Your task to perform on an android device: change your default location settings in chrome Image 0: 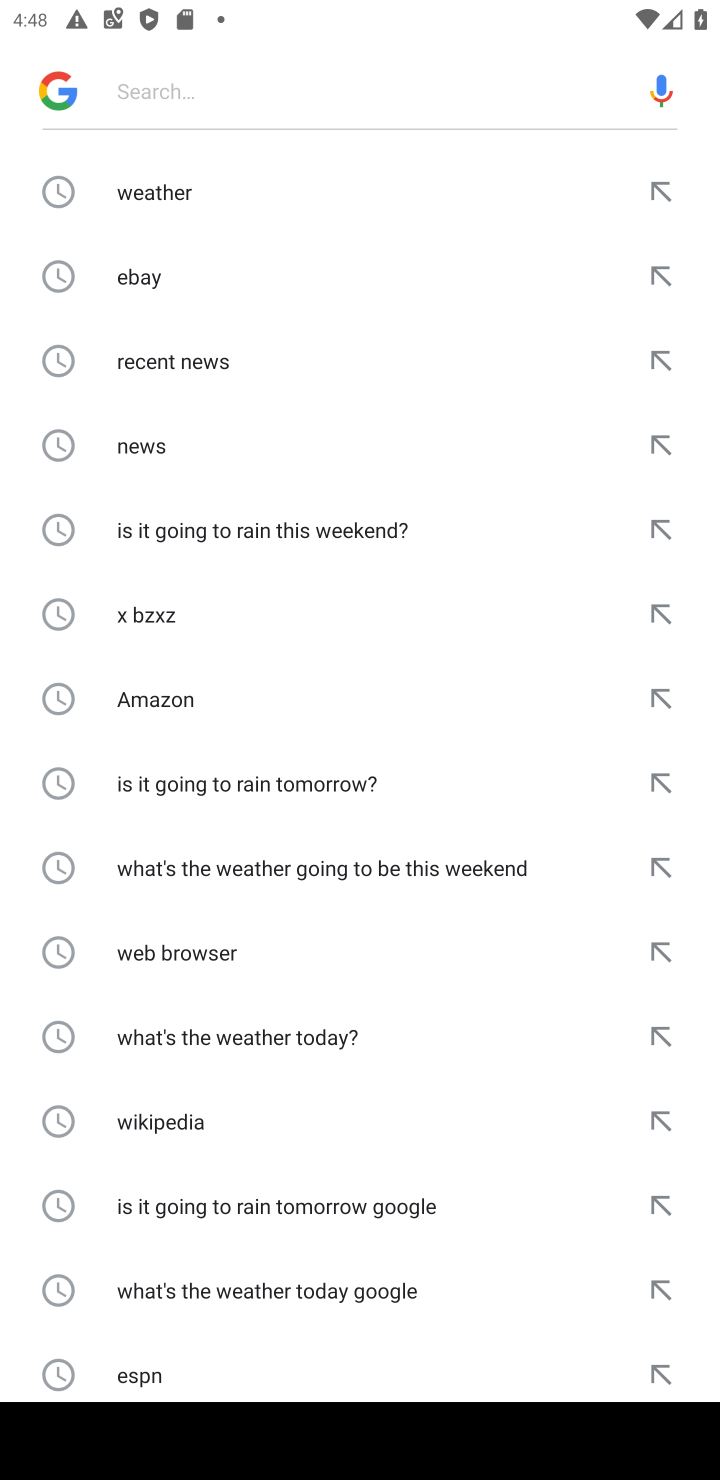
Step 0: press home button
Your task to perform on an android device: change your default location settings in chrome Image 1: 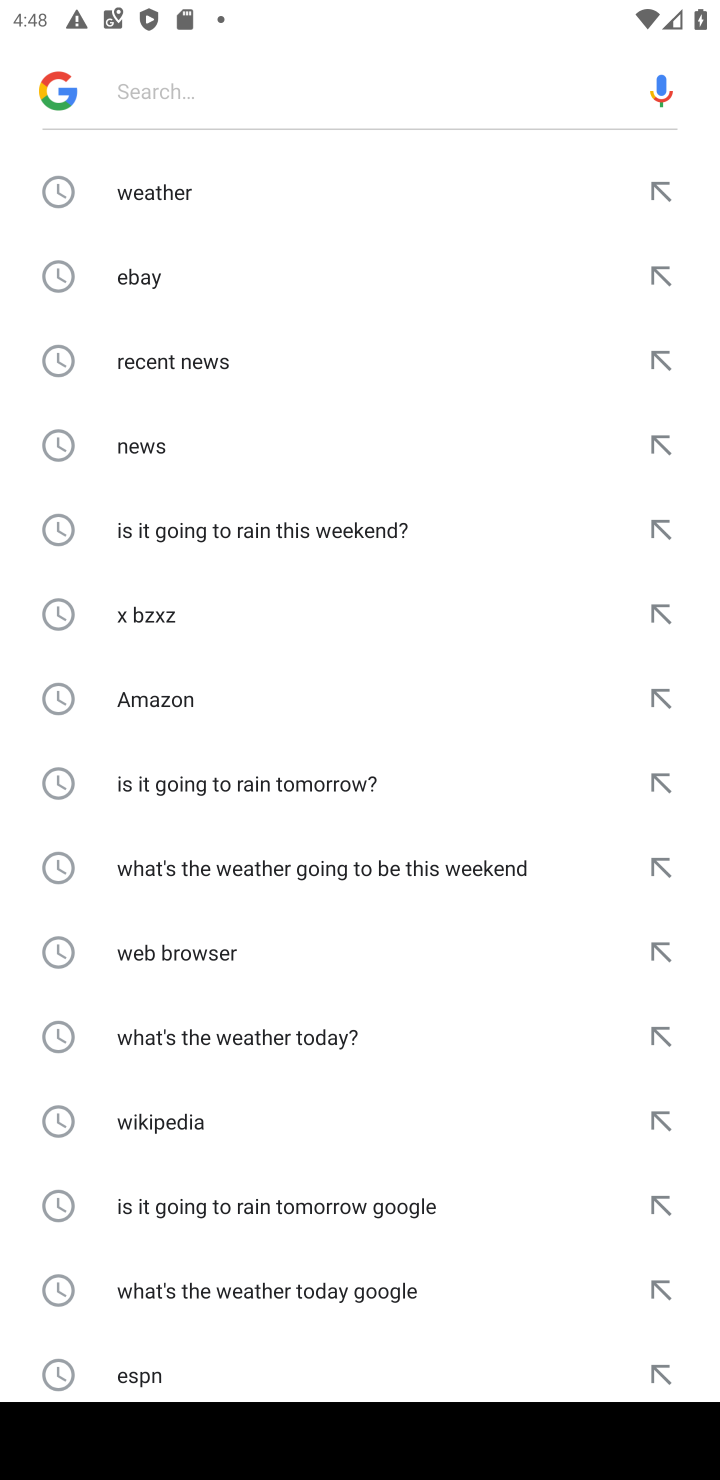
Step 1: press home button
Your task to perform on an android device: change your default location settings in chrome Image 2: 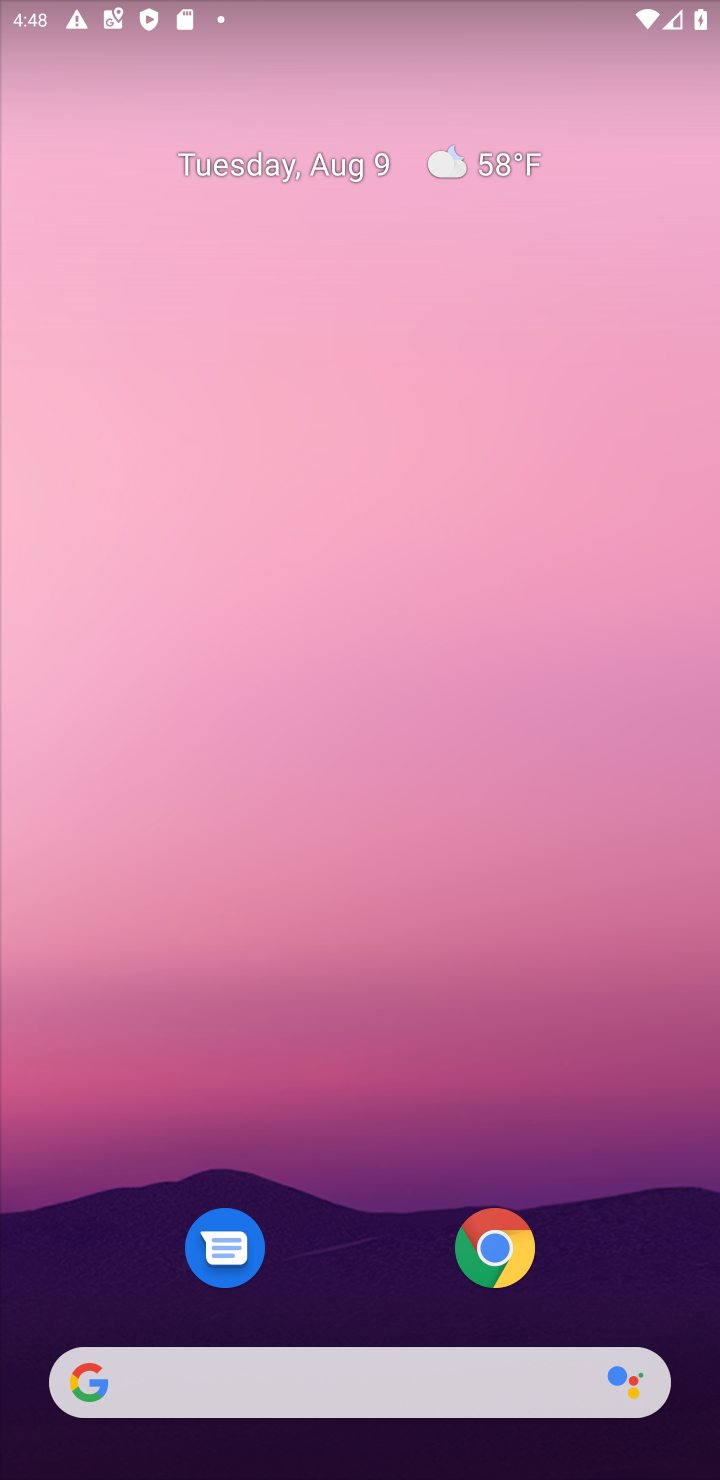
Step 2: drag from (329, 895) to (314, 333)
Your task to perform on an android device: change your default location settings in chrome Image 3: 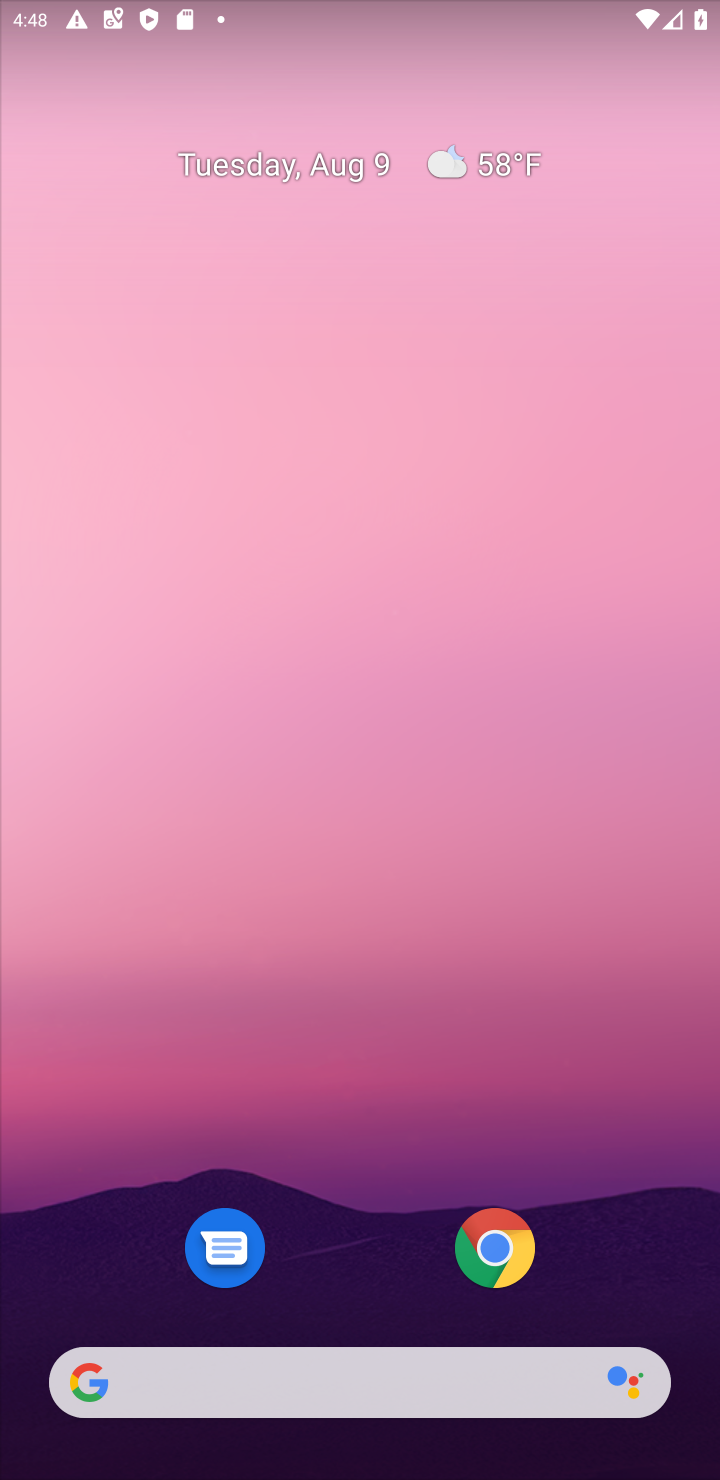
Step 3: drag from (431, 1090) to (410, 270)
Your task to perform on an android device: change your default location settings in chrome Image 4: 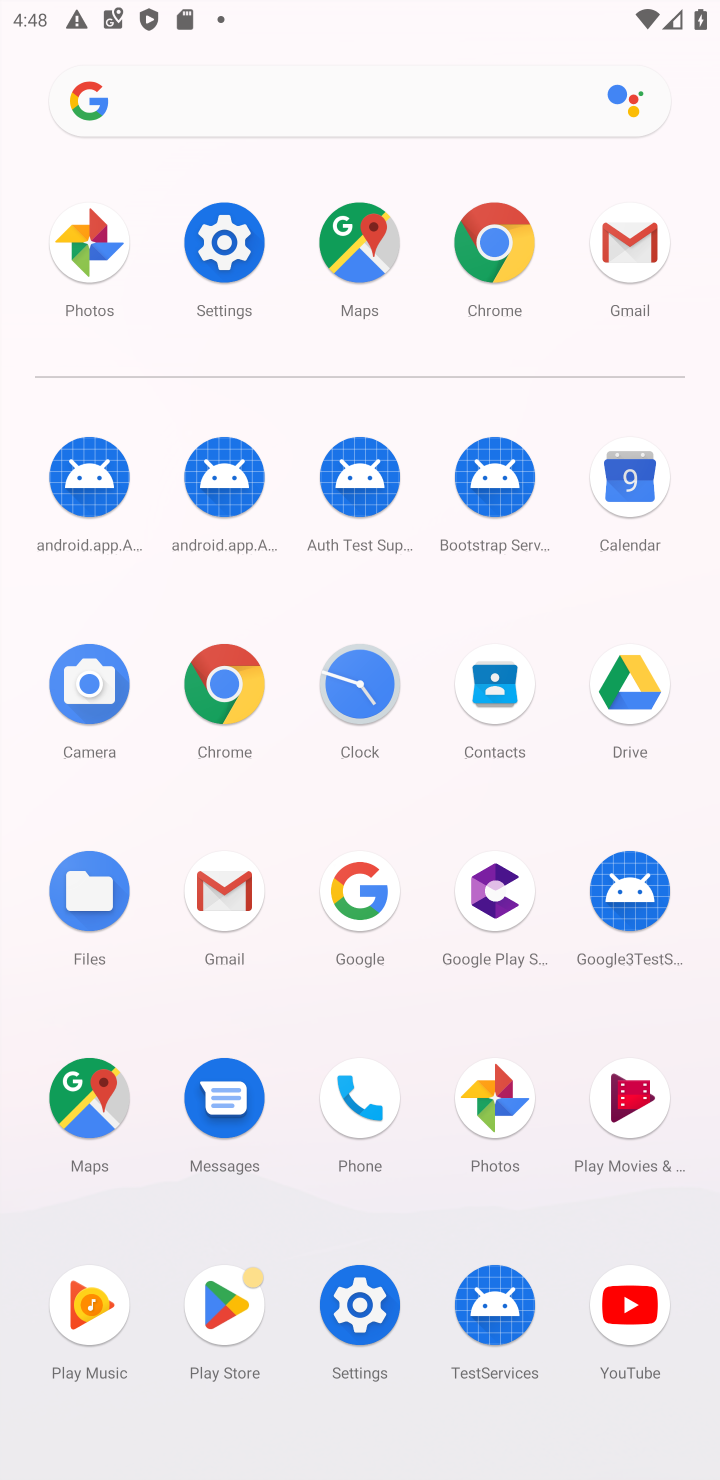
Step 4: click (219, 678)
Your task to perform on an android device: change your default location settings in chrome Image 5: 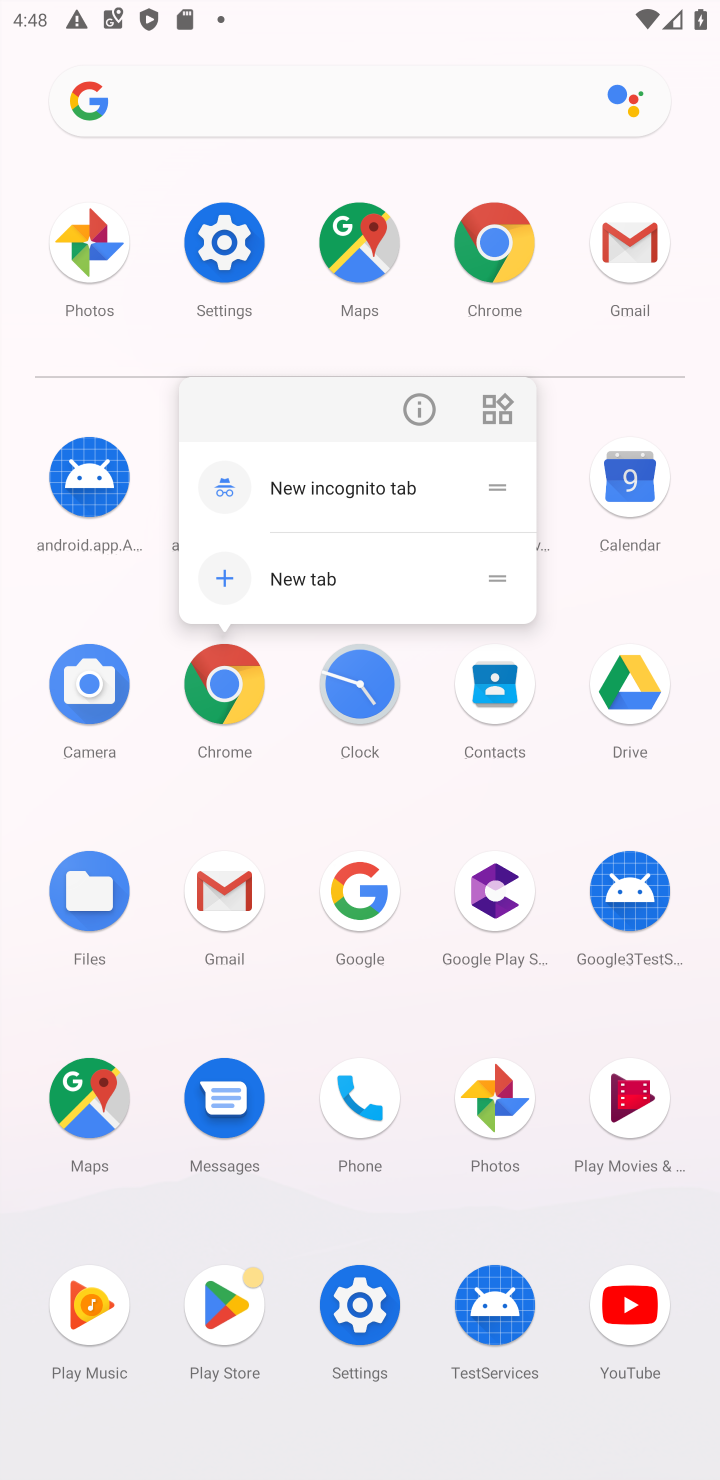
Step 5: click (215, 683)
Your task to perform on an android device: change your default location settings in chrome Image 6: 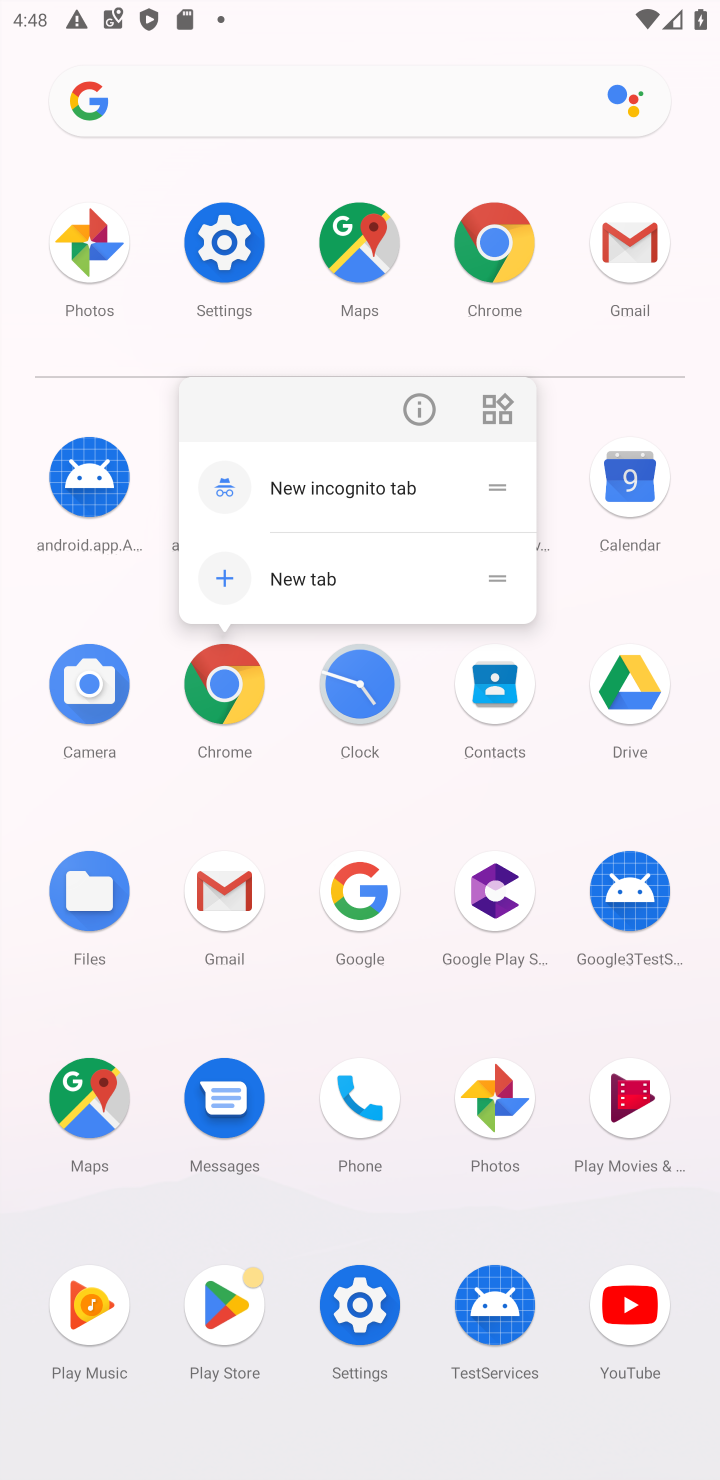
Step 6: click (231, 683)
Your task to perform on an android device: change your default location settings in chrome Image 7: 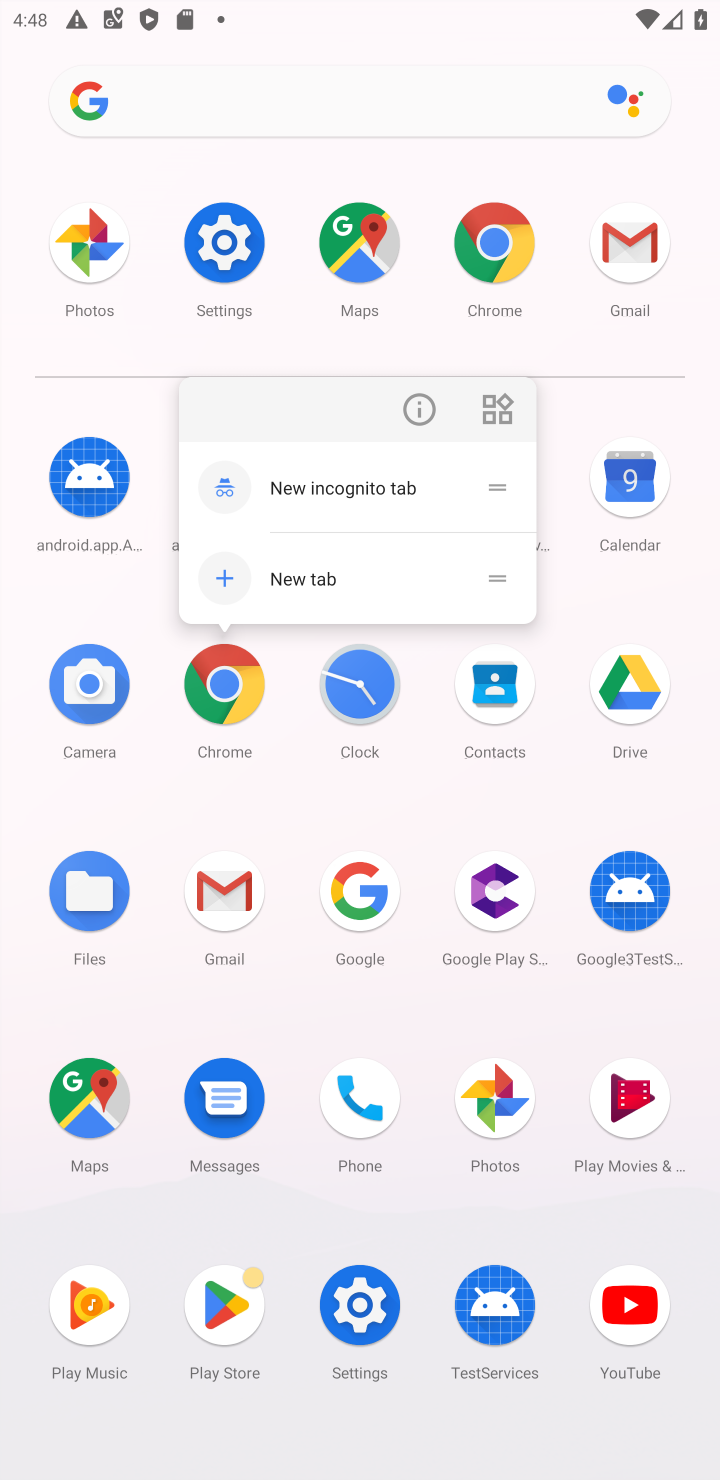
Step 7: click (284, 765)
Your task to perform on an android device: change your default location settings in chrome Image 8: 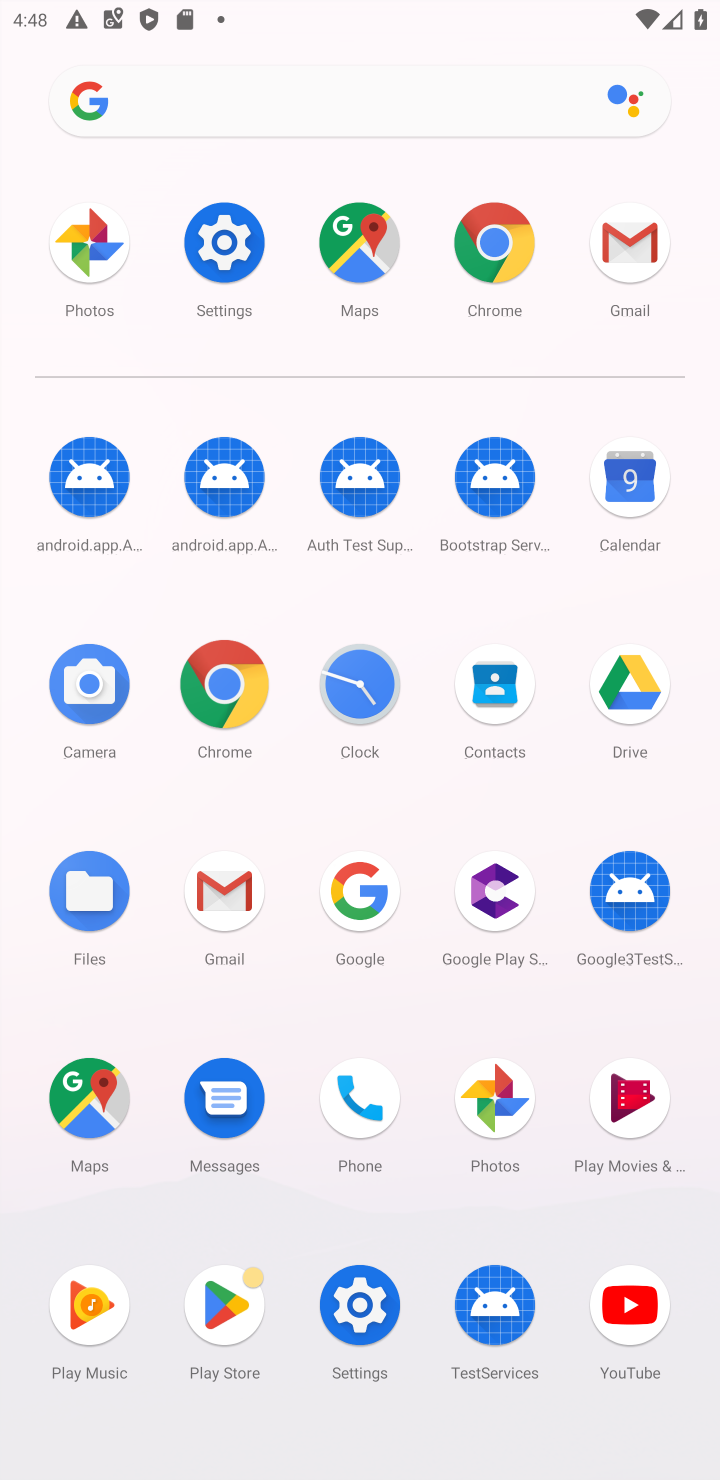
Step 8: click (220, 678)
Your task to perform on an android device: change your default location settings in chrome Image 9: 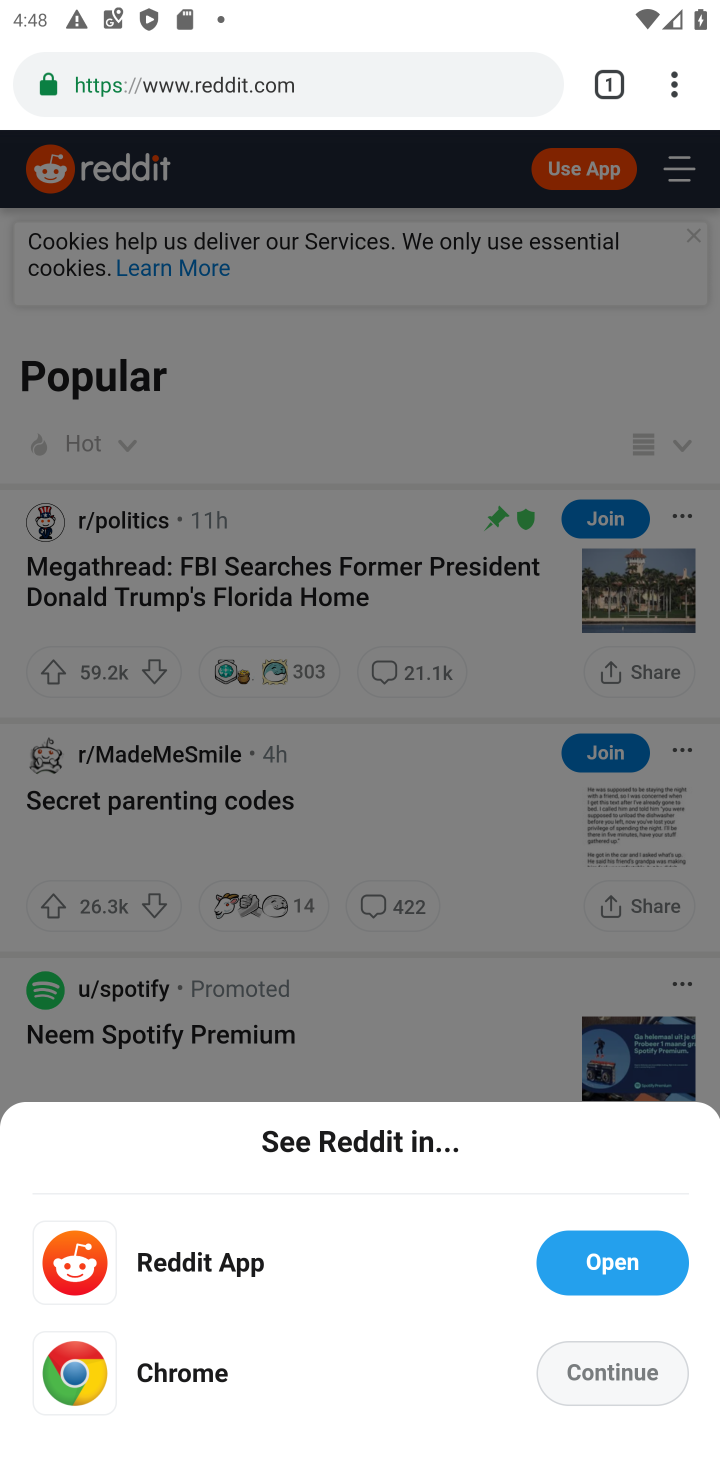
Step 9: click (663, 77)
Your task to perform on an android device: change your default location settings in chrome Image 10: 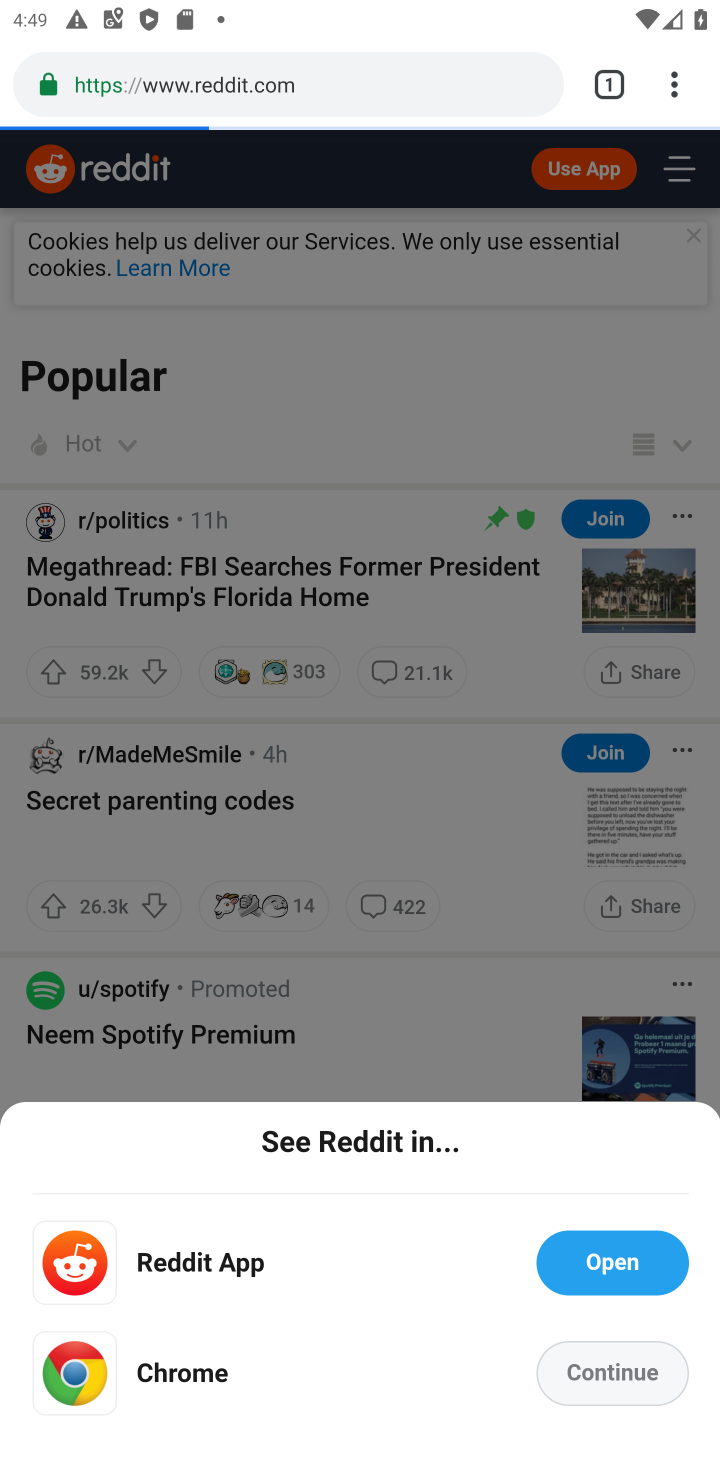
Step 10: drag from (675, 75) to (346, 1107)
Your task to perform on an android device: change your default location settings in chrome Image 11: 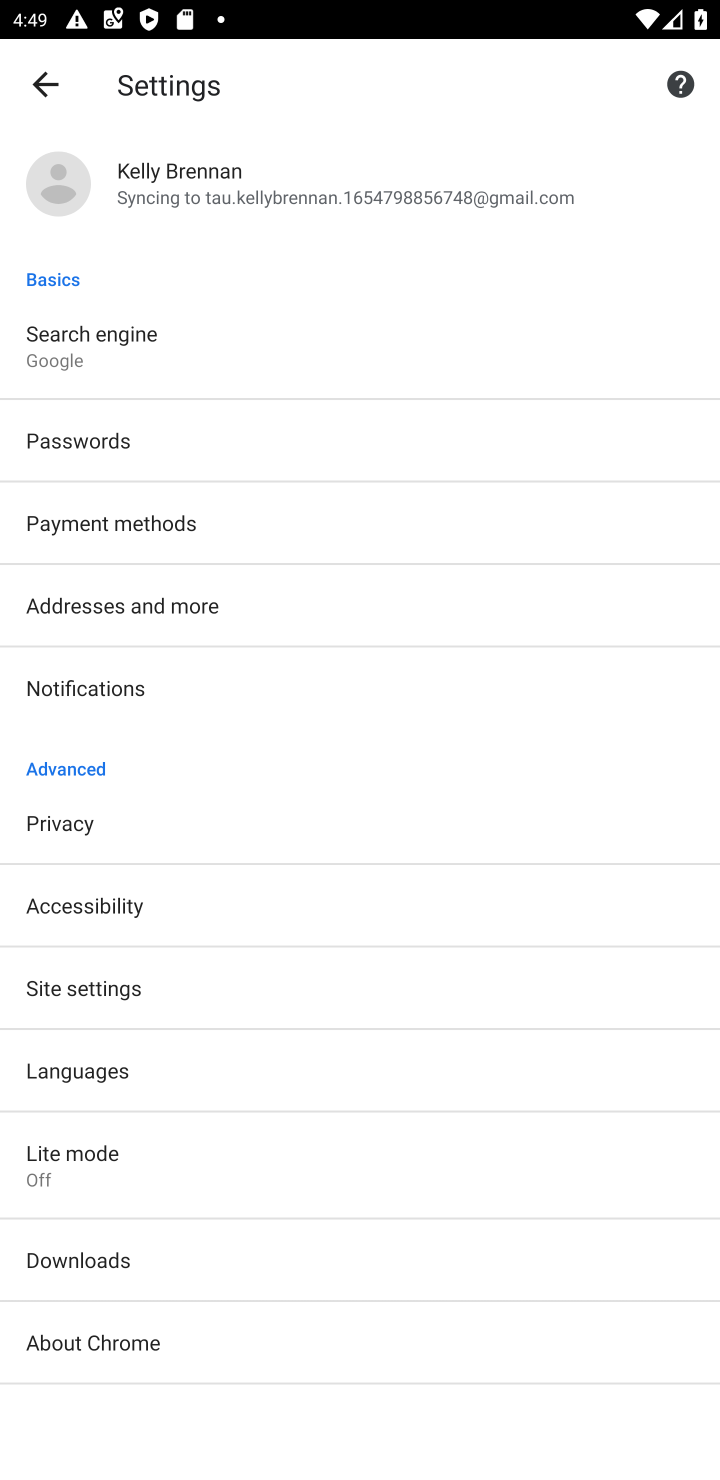
Step 11: click (103, 975)
Your task to perform on an android device: change your default location settings in chrome Image 12: 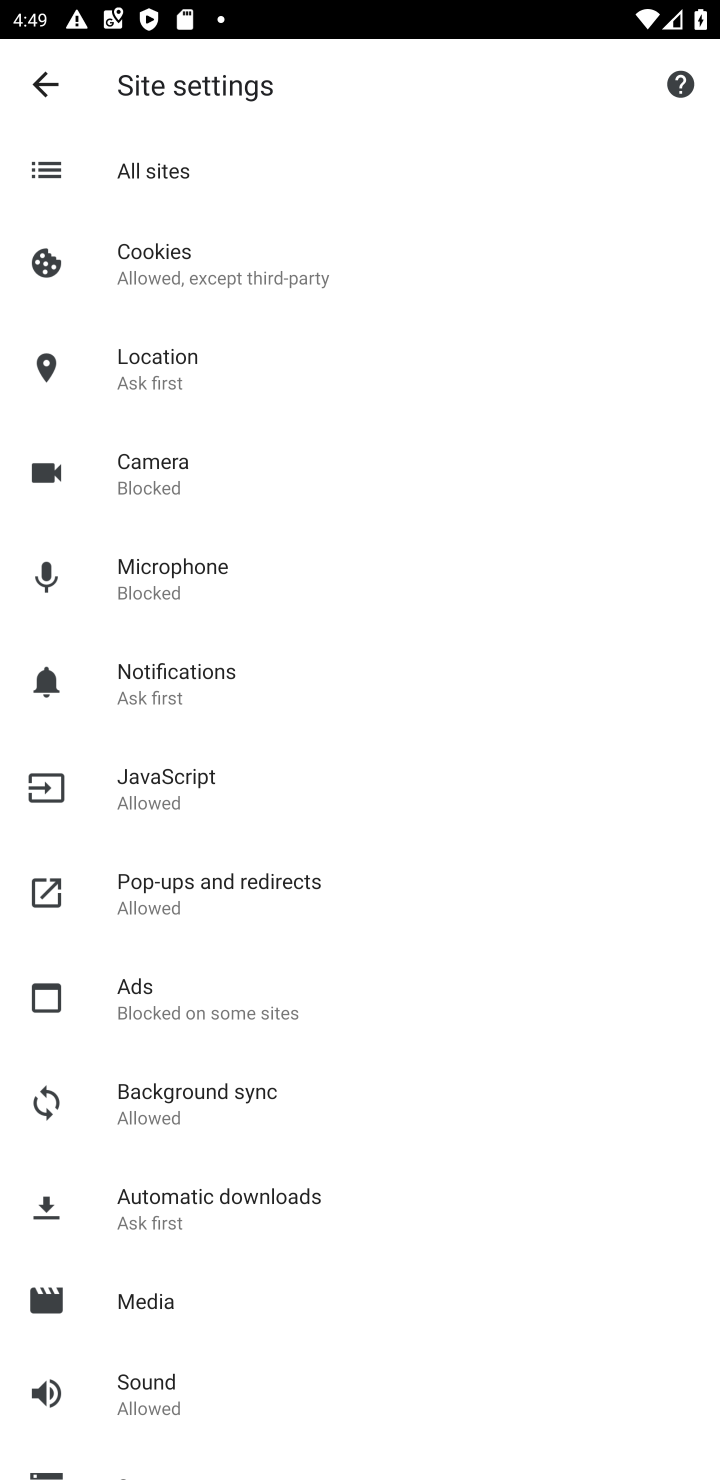
Step 12: click (164, 383)
Your task to perform on an android device: change your default location settings in chrome Image 13: 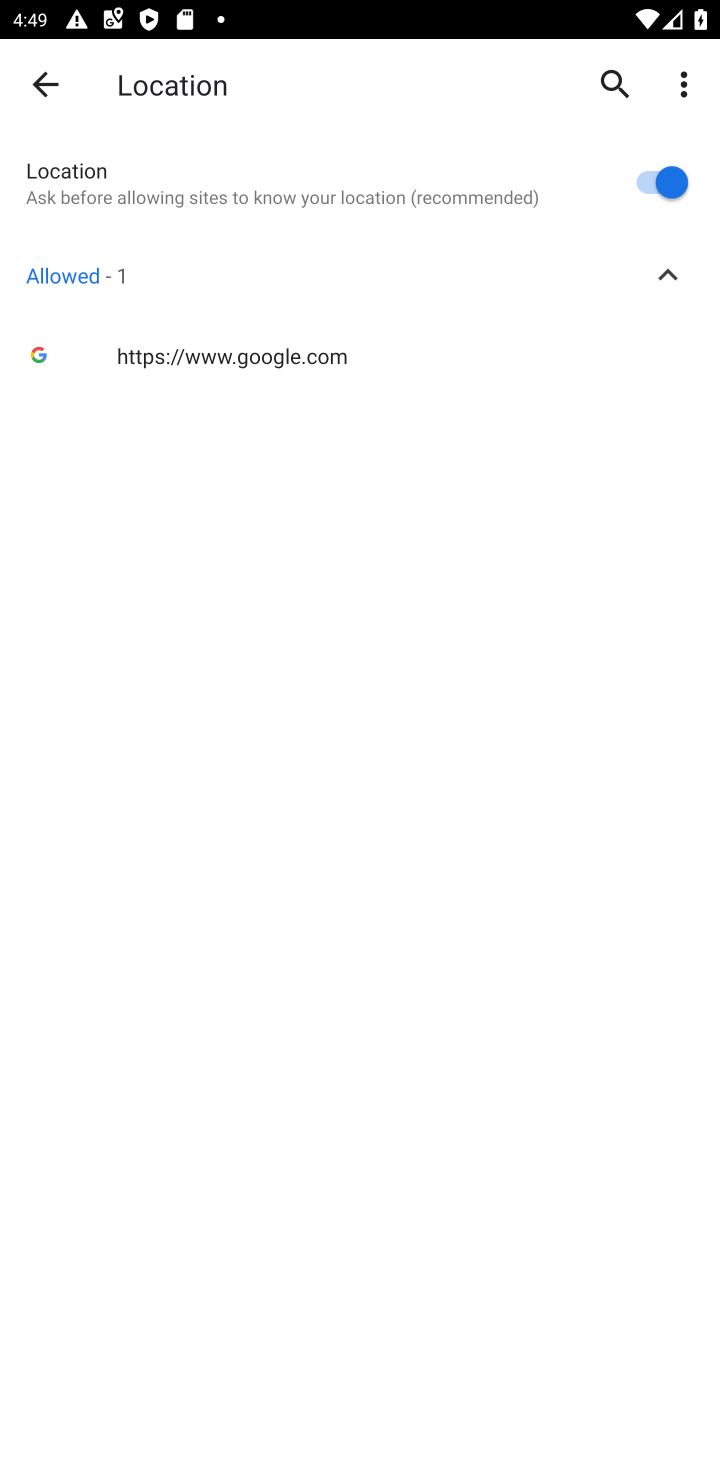
Step 13: click (630, 176)
Your task to perform on an android device: change your default location settings in chrome Image 14: 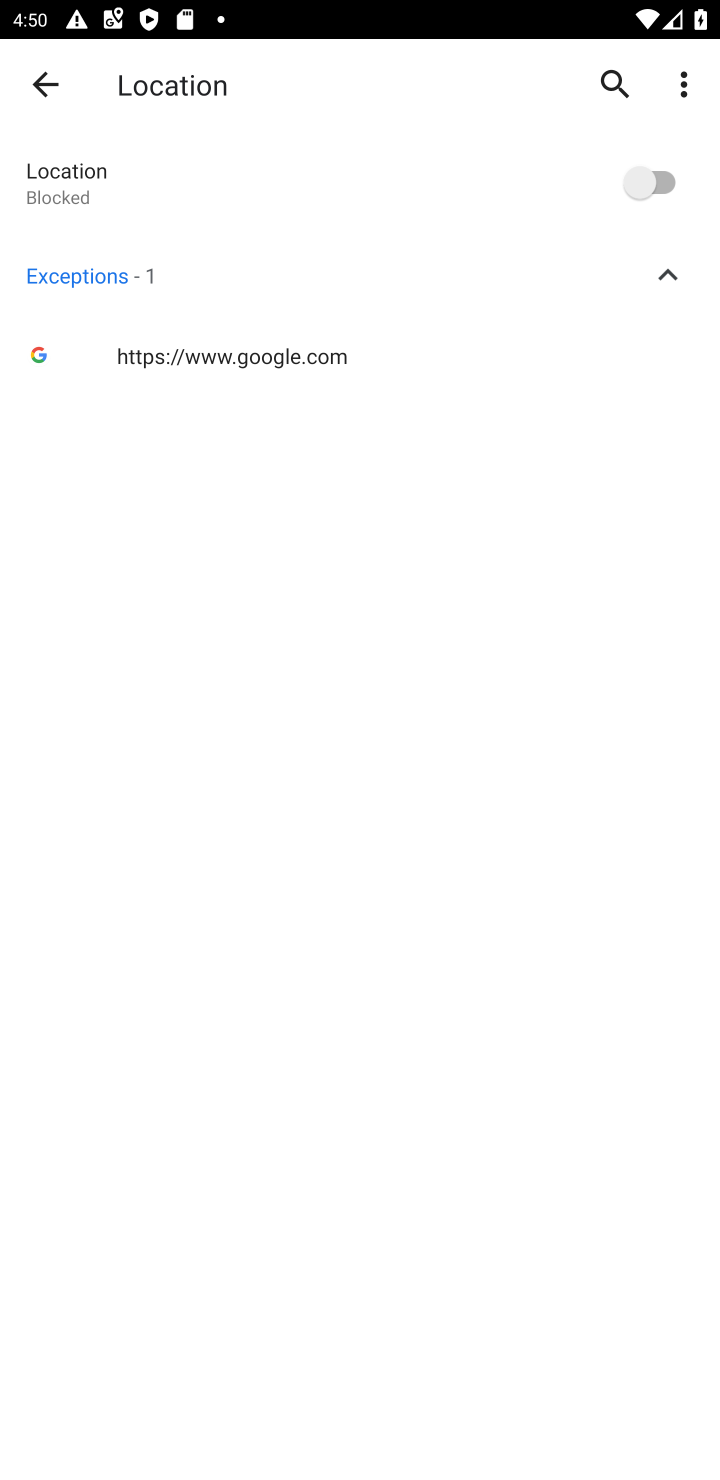
Step 14: task complete